Your task to perform on an android device: search for starred emails in the gmail app Image 0: 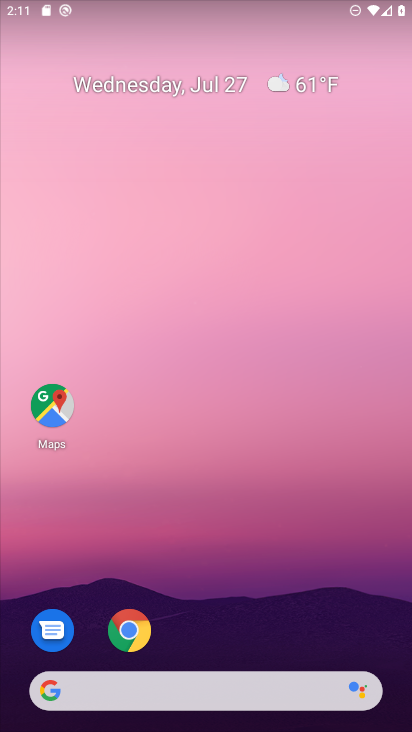
Step 0: drag from (294, 605) to (259, 29)
Your task to perform on an android device: search for starred emails in the gmail app Image 1: 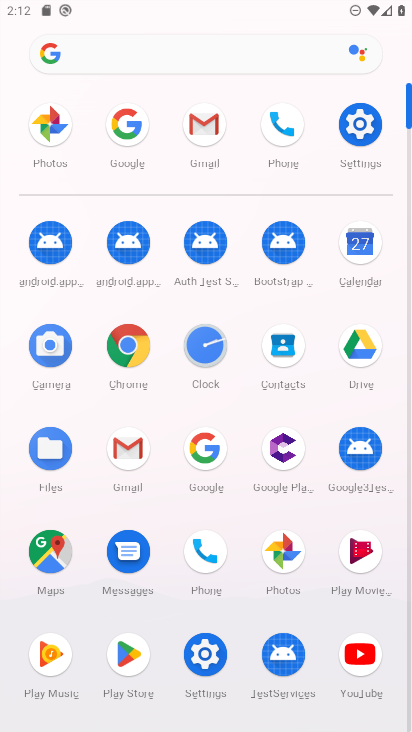
Step 1: click (134, 447)
Your task to perform on an android device: search for starred emails in the gmail app Image 2: 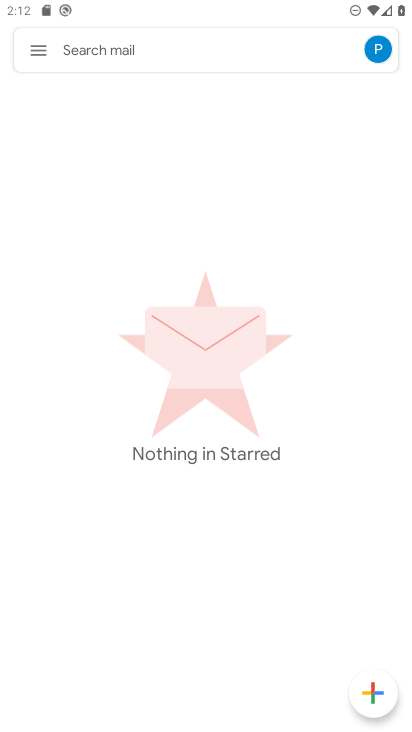
Step 2: click (35, 43)
Your task to perform on an android device: search for starred emails in the gmail app Image 3: 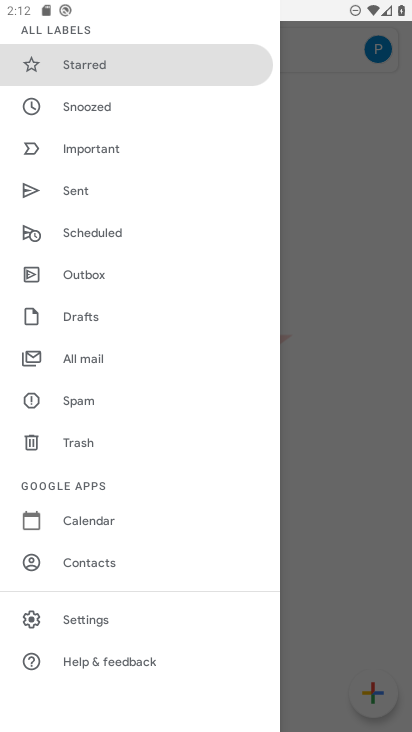
Step 3: click (160, 72)
Your task to perform on an android device: search for starred emails in the gmail app Image 4: 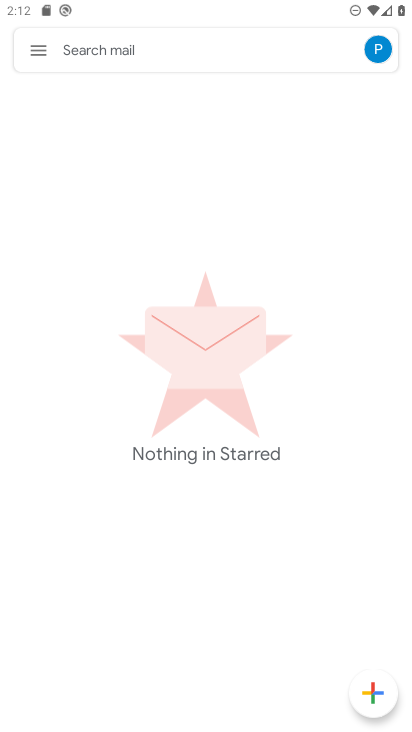
Step 4: task complete